Your task to perform on an android device: Open accessibility settings Image 0: 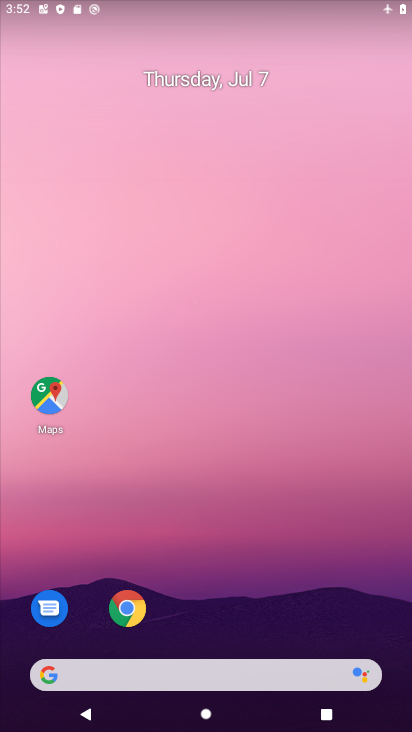
Step 0: drag from (210, 633) to (180, 27)
Your task to perform on an android device: Open accessibility settings Image 1: 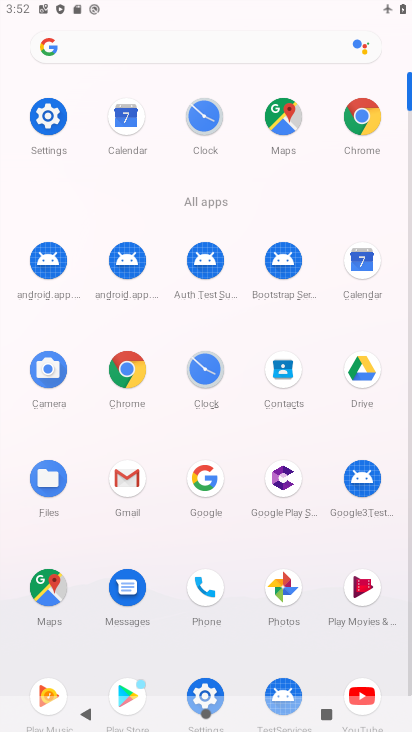
Step 1: click (39, 119)
Your task to perform on an android device: Open accessibility settings Image 2: 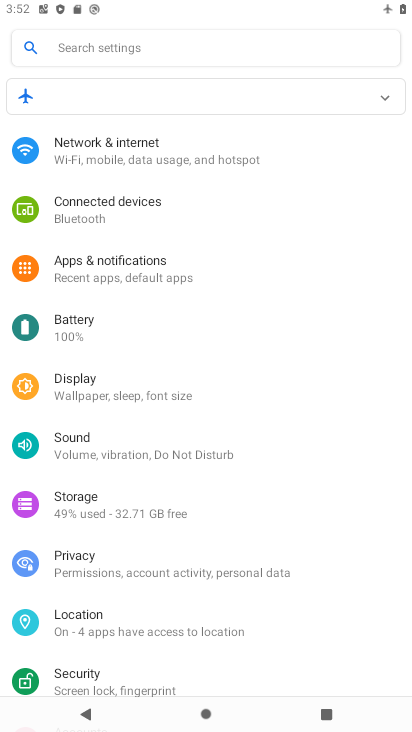
Step 2: drag from (177, 658) to (114, 237)
Your task to perform on an android device: Open accessibility settings Image 3: 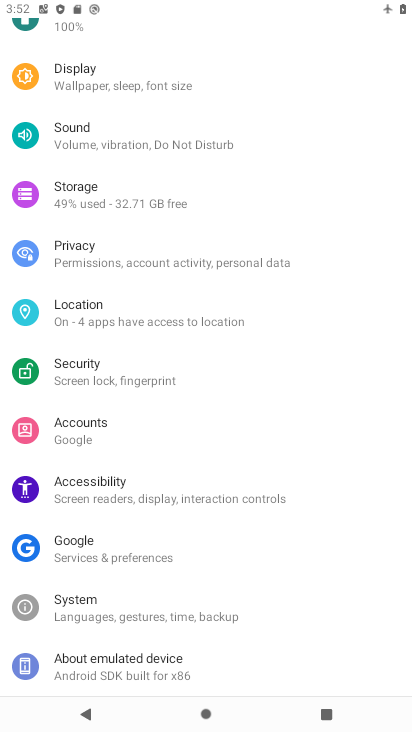
Step 3: click (145, 479)
Your task to perform on an android device: Open accessibility settings Image 4: 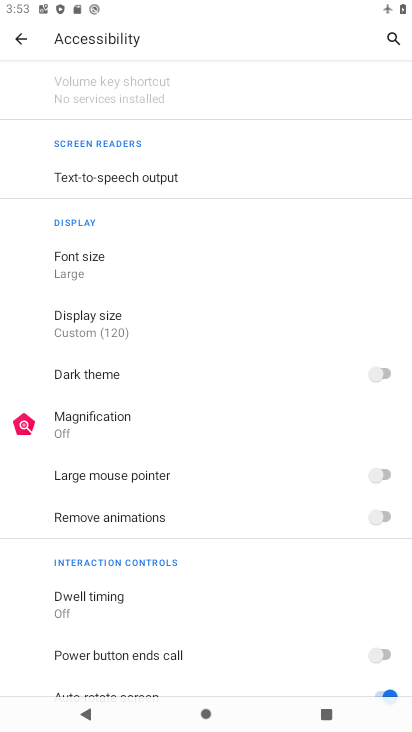
Step 4: task complete